Your task to perform on an android device: Show me productivity apps on the Play Store Image 0: 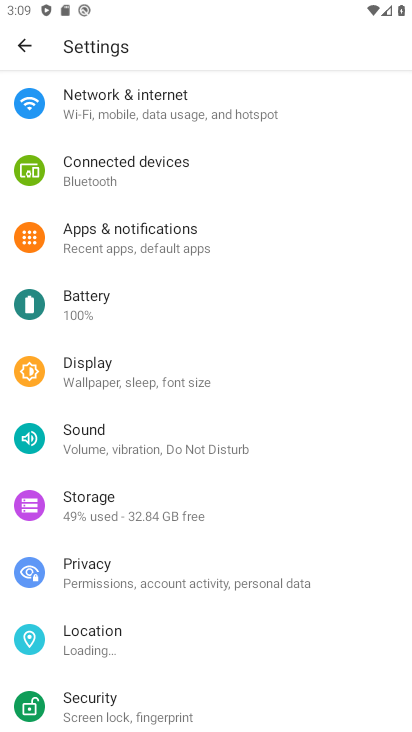
Step 0: press home button
Your task to perform on an android device: Show me productivity apps on the Play Store Image 1: 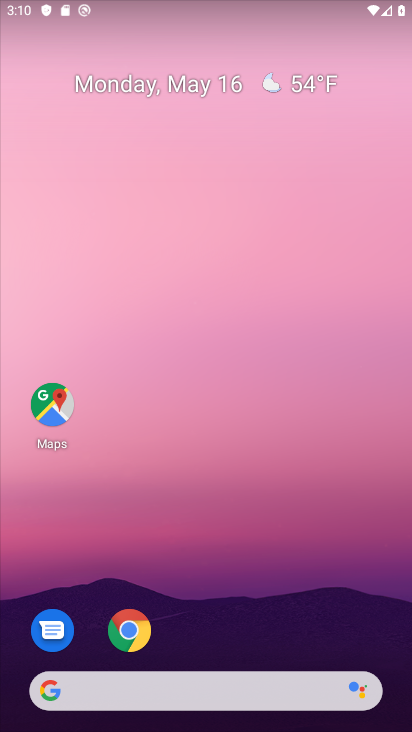
Step 1: drag from (226, 624) to (193, 59)
Your task to perform on an android device: Show me productivity apps on the Play Store Image 2: 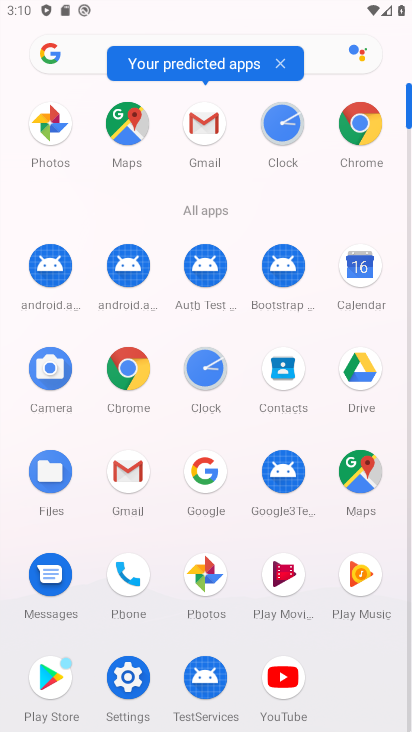
Step 2: click (41, 675)
Your task to perform on an android device: Show me productivity apps on the Play Store Image 3: 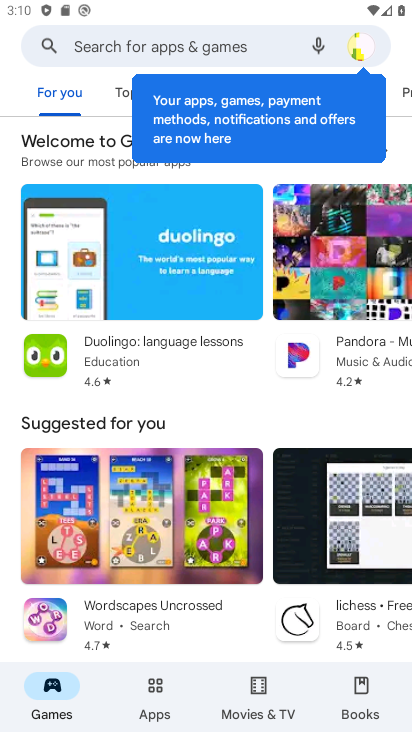
Step 3: click (149, 708)
Your task to perform on an android device: Show me productivity apps on the Play Store Image 4: 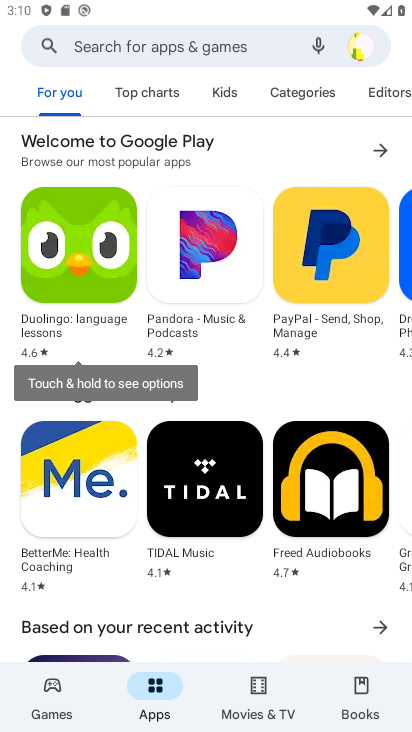
Step 4: click (280, 100)
Your task to perform on an android device: Show me productivity apps on the Play Store Image 5: 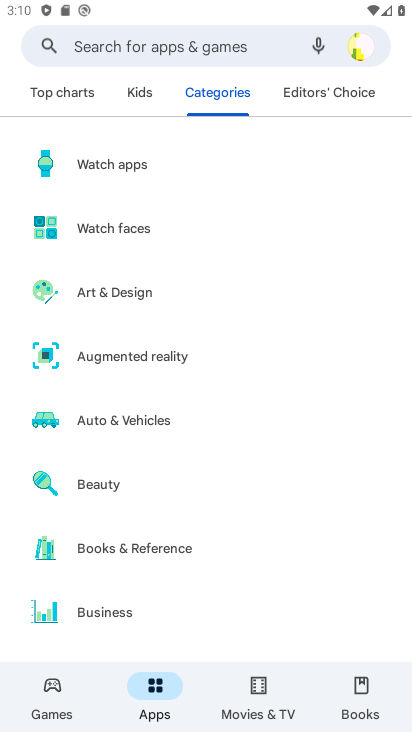
Step 5: drag from (184, 609) to (130, 201)
Your task to perform on an android device: Show me productivity apps on the Play Store Image 6: 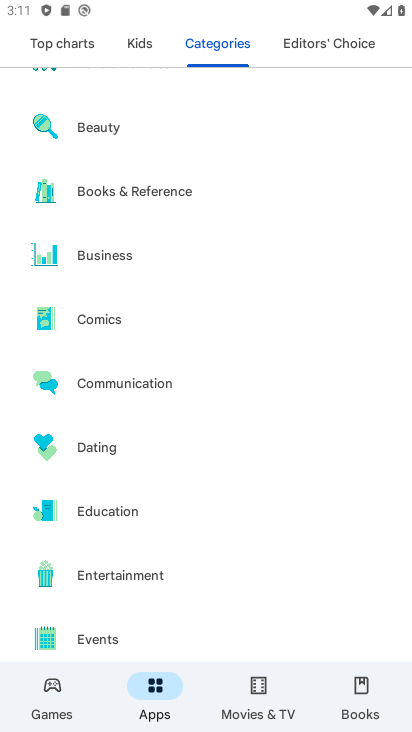
Step 6: drag from (251, 627) to (207, 121)
Your task to perform on an android device: Show me productivity apps on the Play Store Image 7: 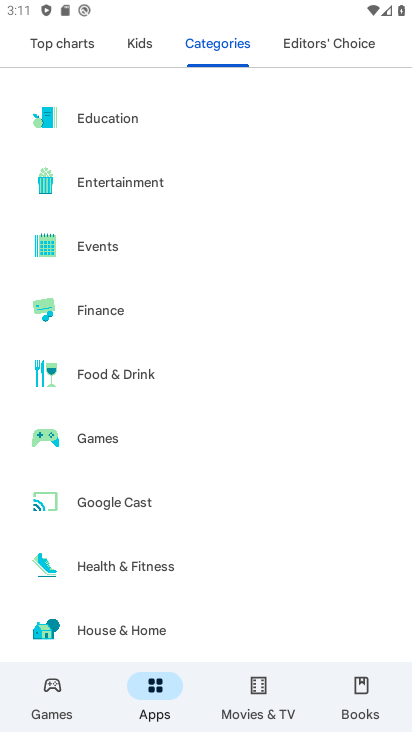
Step 7: drag from (268, 582) to (212, 158)
Your task to perform on an android device: Show me productivity apps on the Play Store Image 8: 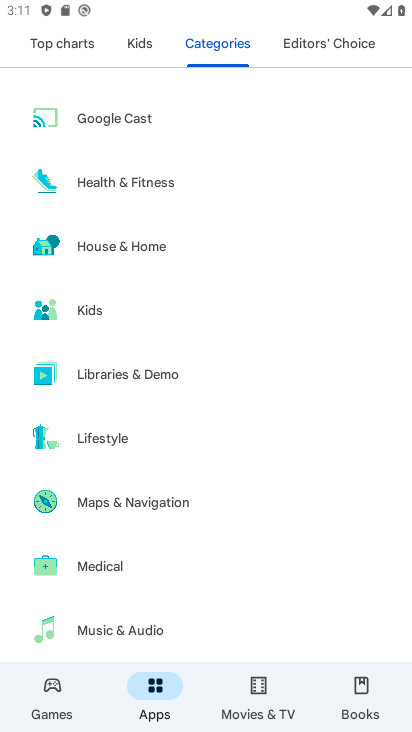
Step 8: drag from (261, 571) to (238, 201)
Your task to perform on an android device: Show me productivity apps on the Play Store Image 9: 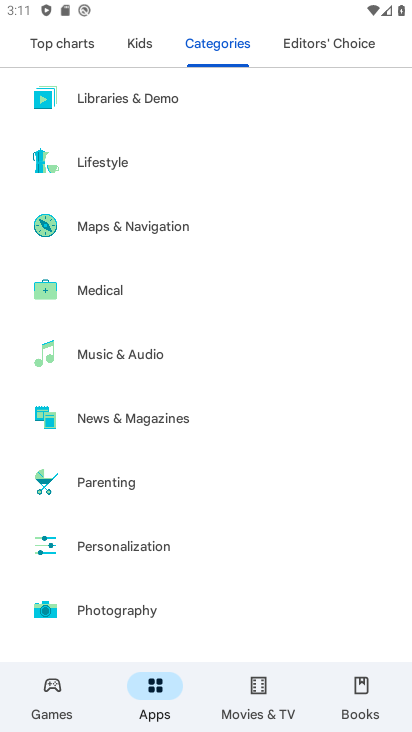
Step 9: drag from (289, 611) to (233, 302)
Your task to perform on an android device: Show me productivity apps on the Play Store Image 10: 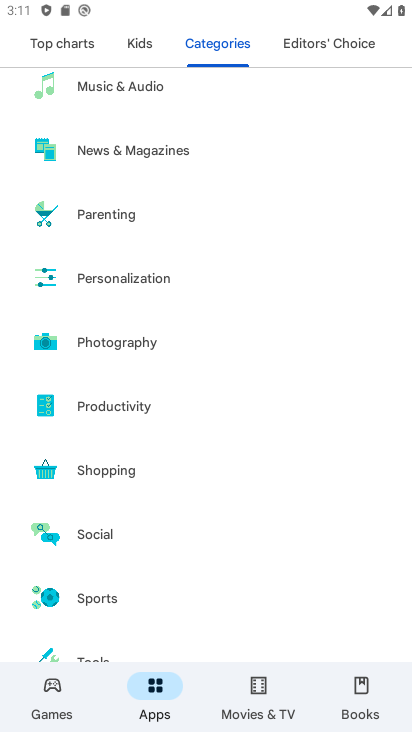
Step 10: click (209, 406)
Your task to perform on an android device: Show me productivity apps on the Play Store Image 11: 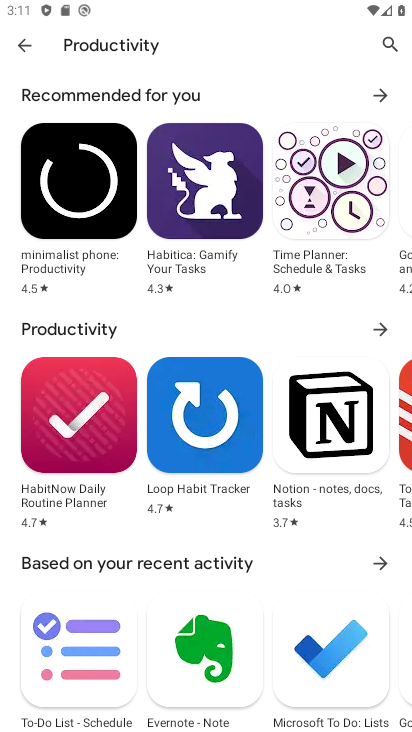
Step 11: task complete